Your task to perform on an android device: Open Android settings Image 0: 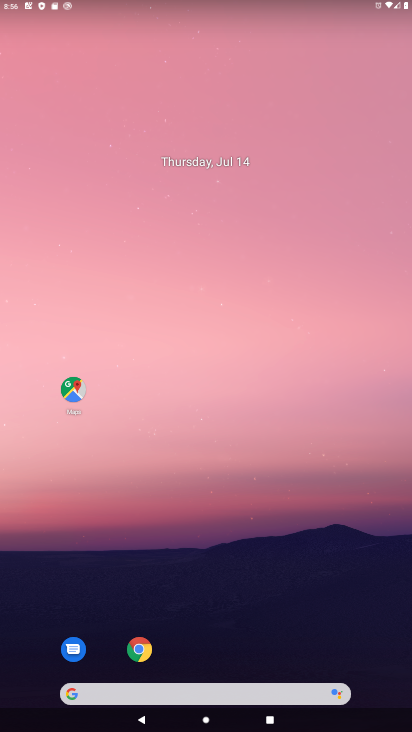
Step 0: drag from (154, 557) to (170, 37)
Your task to perform on an android device: Open Android settings Image 1: 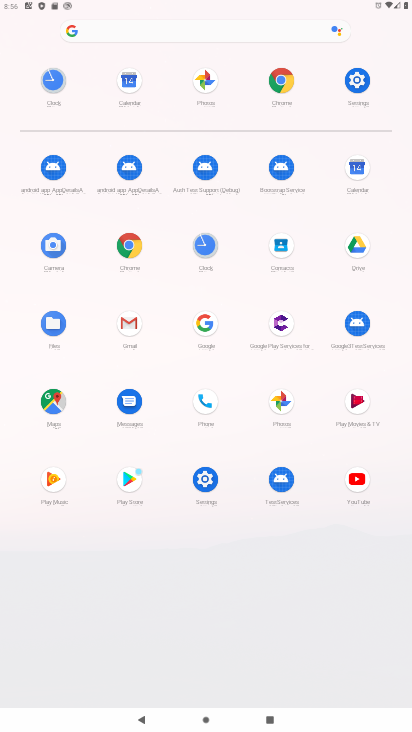
Step 1: click (351, 77)
Your task to perform on an android device: Open Android settings Image 2: 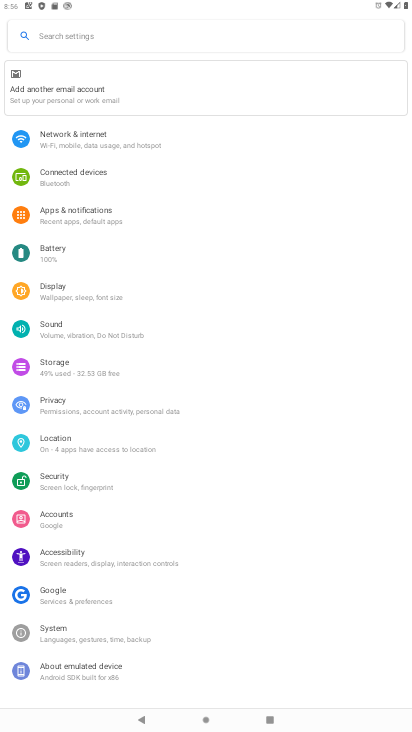
Step 2: click (100, 669)
Your task to perform on an android device: Open Android settings Image 3: 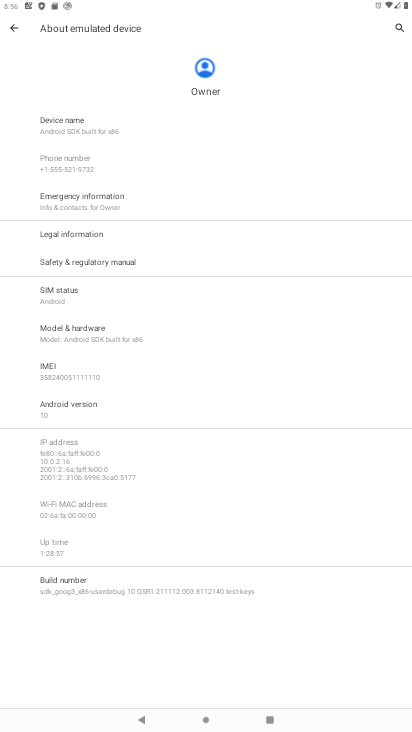
Step 3: task complete